Your task to perform on an android device: find which apps use the phone's location Image 0: 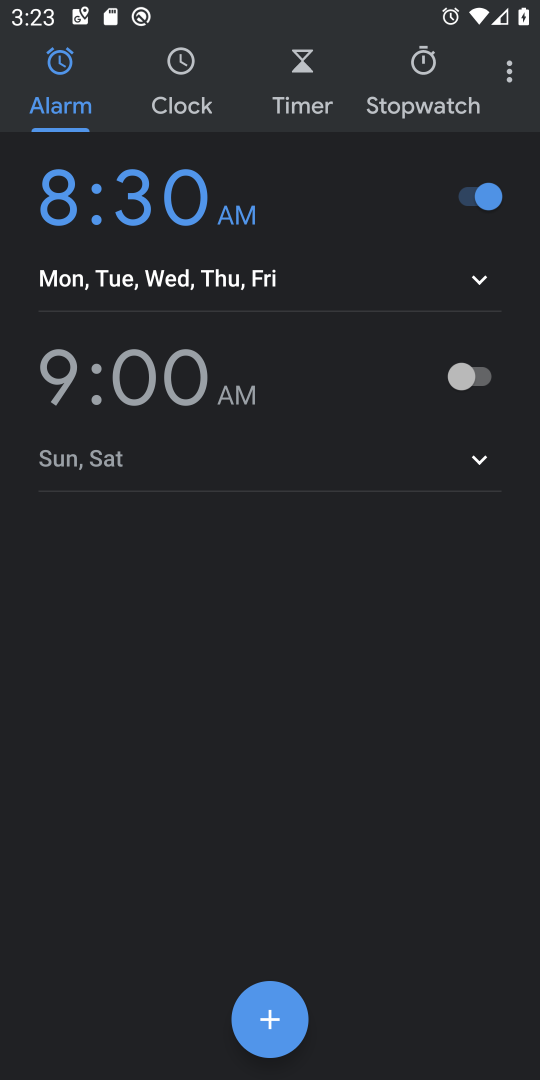
Step 0: press home button
Your task to perform on an android device: find which apps use the phone's location Image 1: 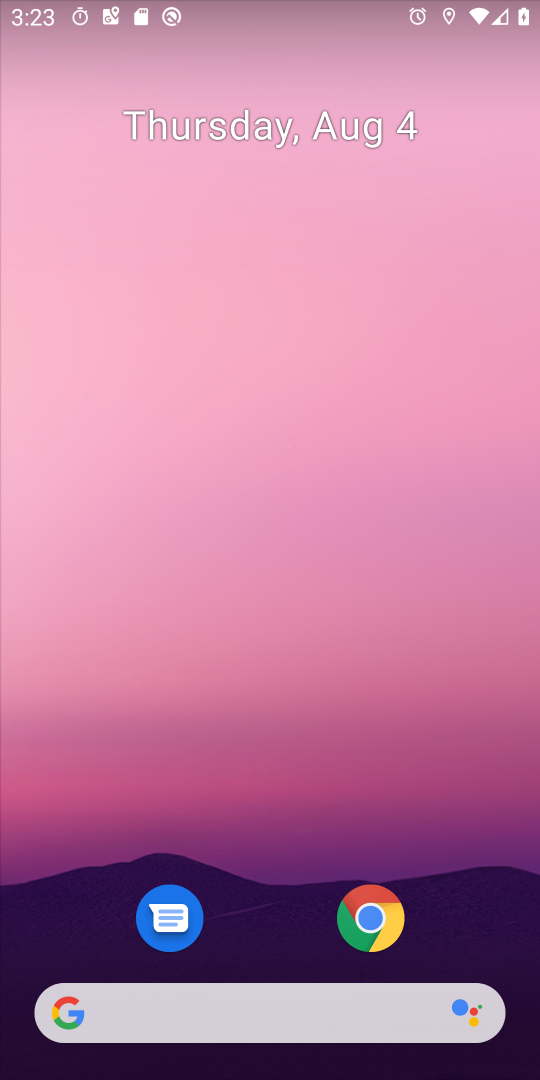
Step 1: drag from (211, 905) to (243, 185)
Your task to perform on an android device: find which apps use the phone's location Image 2: 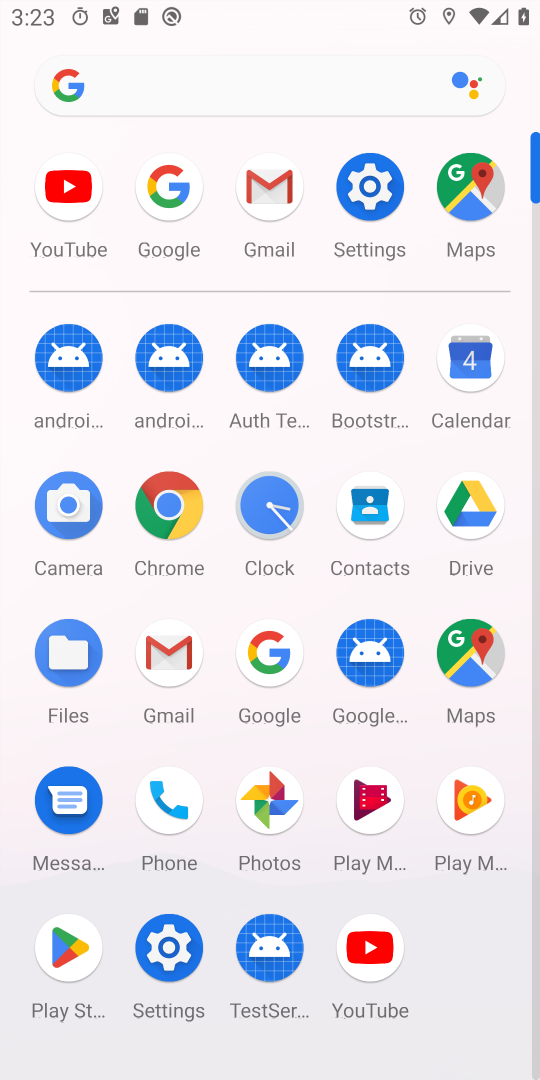
Step 2: click (358, 180)
Your task to perform on an android device: find which apps use the phone's location Image 3: 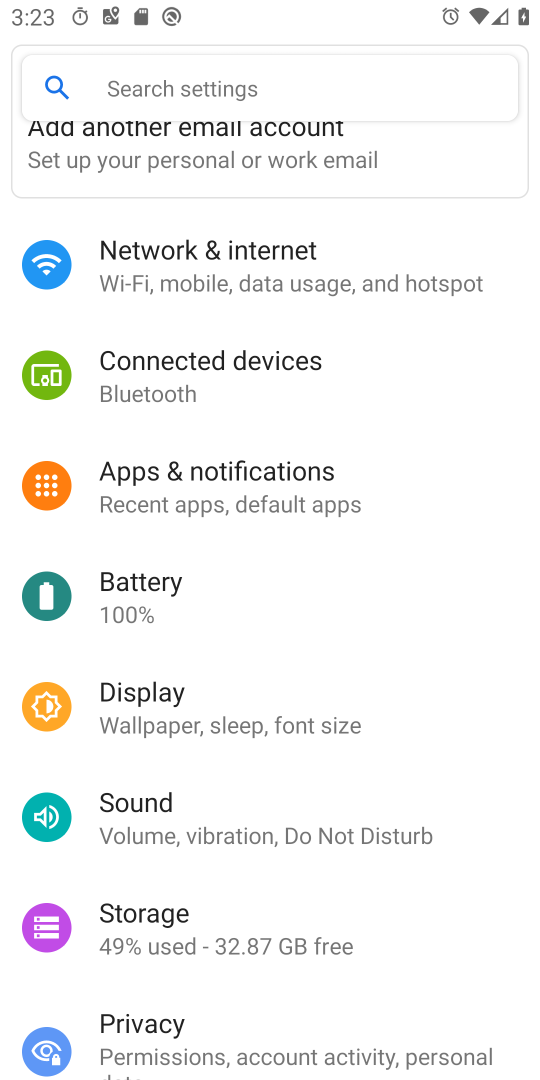
Step 3: drag from (200, 920) to (229, 404)
Your task to perform on an android device: find which apps use the phone's location Image 4: 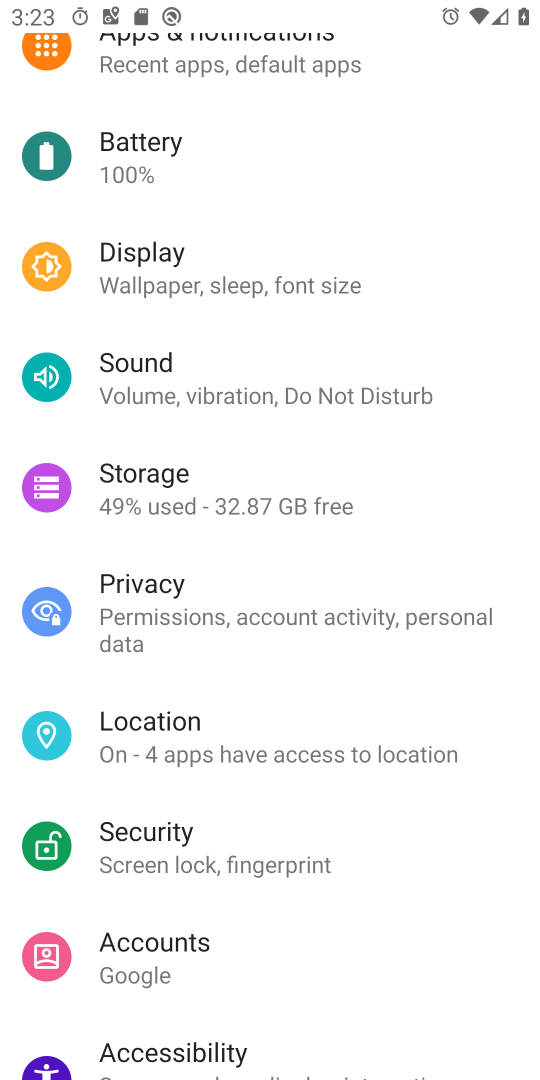
Step 4: click (208, 725)
Your task to perform on an android device: find which apps use the phone's location Image 5: 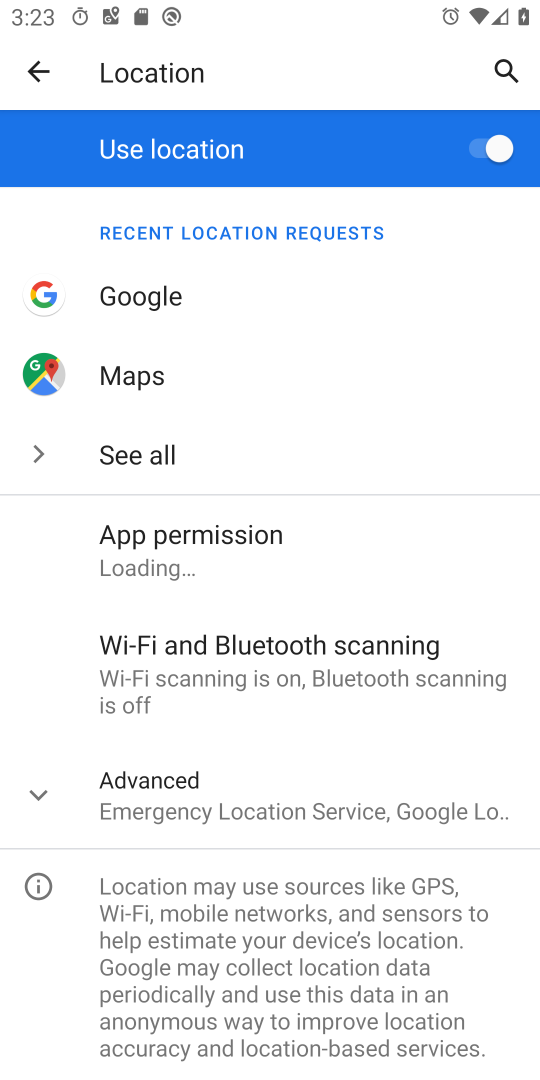
Step 5: click (189, 561)
Your task to perform on an android device: find which apps use the phone's location Image 6: 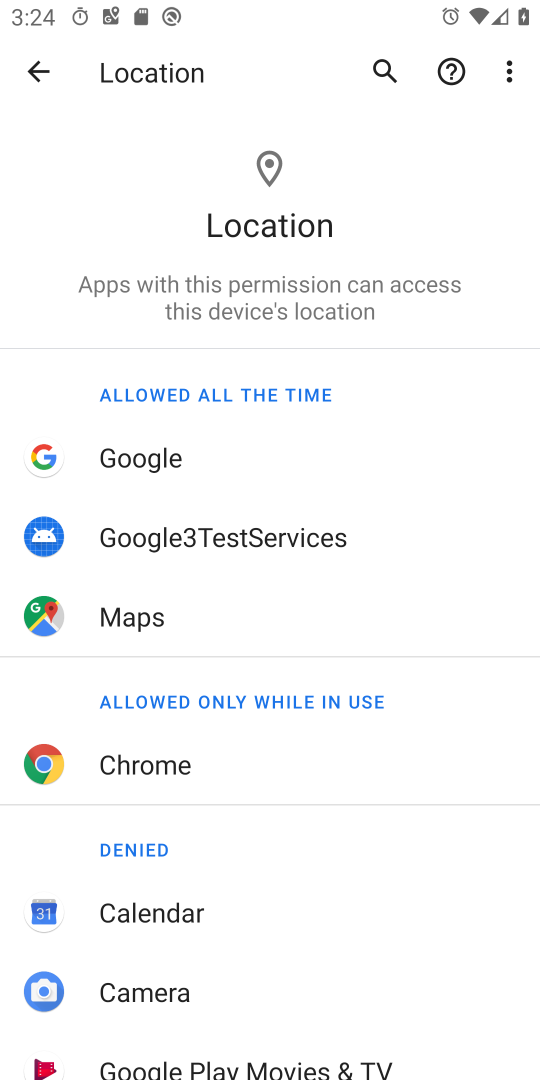
Step 6: task complete